Your task to perform on an android device: check google app version Image 0: 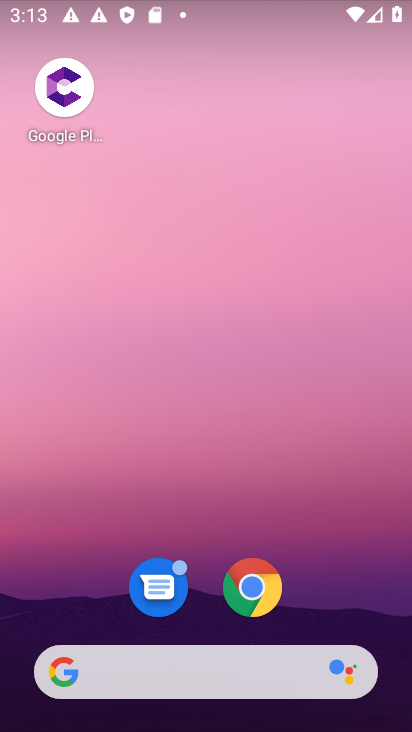
Step 0: click (189, 685)
Your task to perform on an android device: check google app version Image 1: 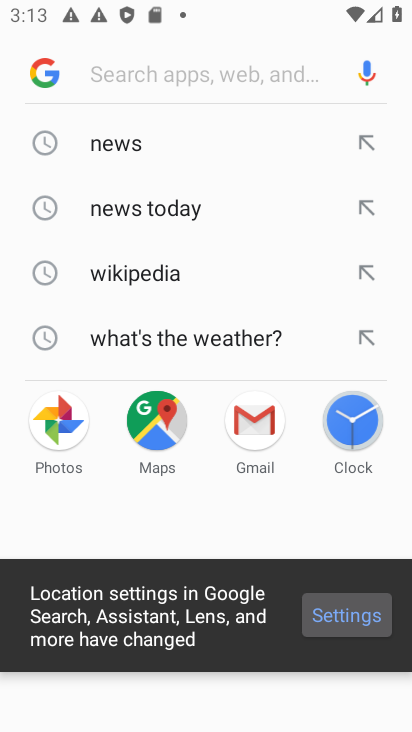
Step 1: click (54, 85)
Your task to perform on an android device: check google app version Image 2: 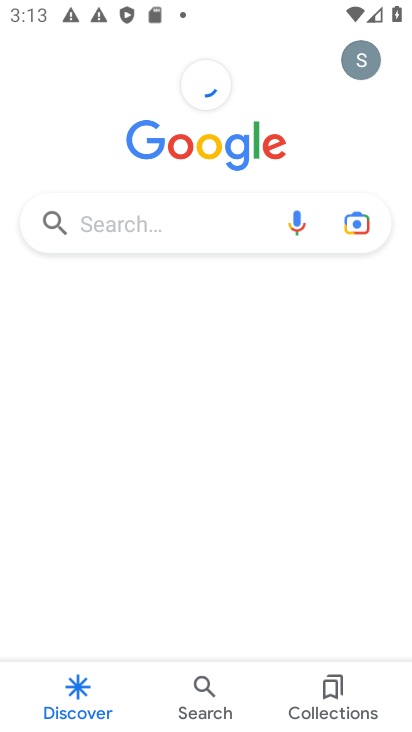
Step 2: click (367, 71)
Your task to perform on an android device: check google app version Image 3: 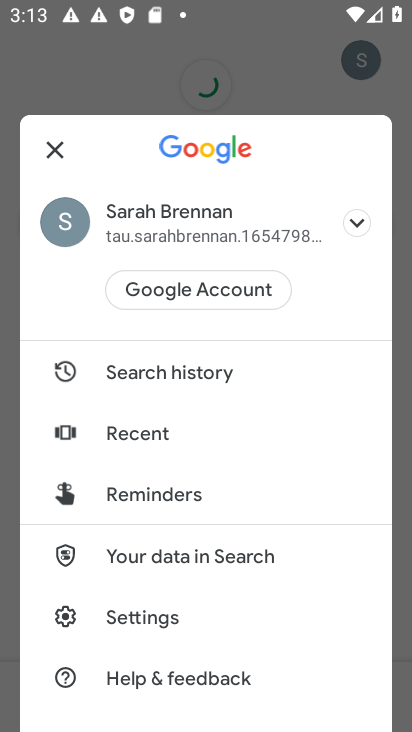
Step 3: click (158, 616)
Your task to perform on an android device: check google app version Image 4: 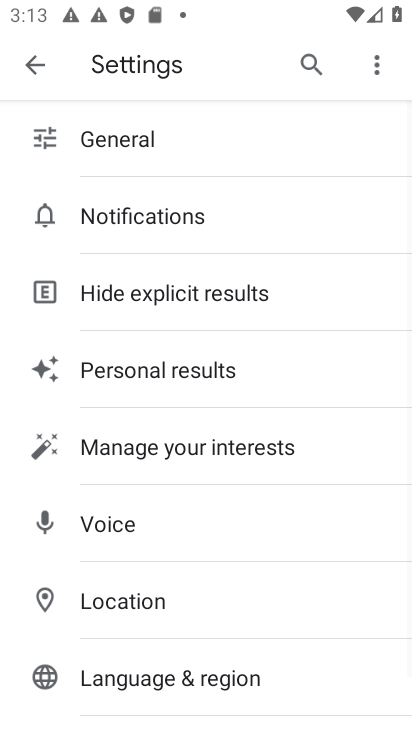
Step 4: drag from (230, 490) to (252, 243)
Your task to perform on an android device: check google app version Image 5: 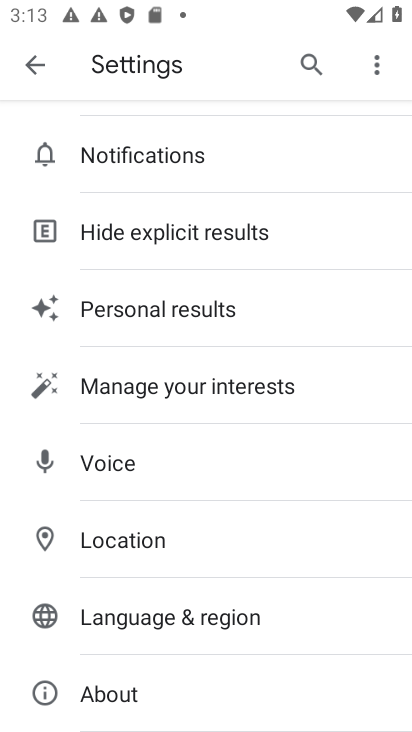
Step 5: click (177, 689)
Your task to perform on an android device: check google app version Image 6: 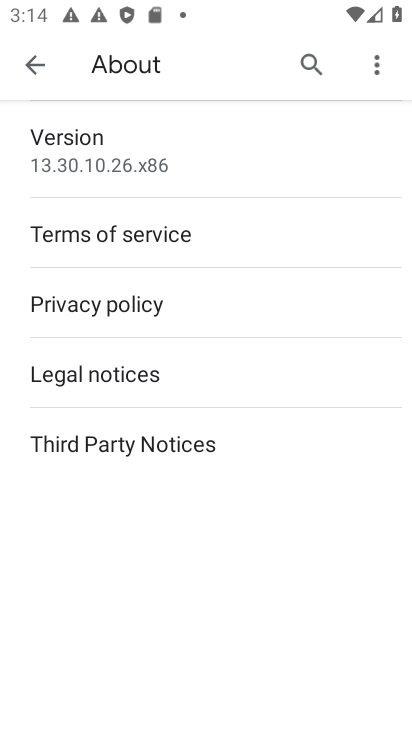
Step 6: task complete